Your task to perform on an android device: Go to Yahoo.com Image 0: 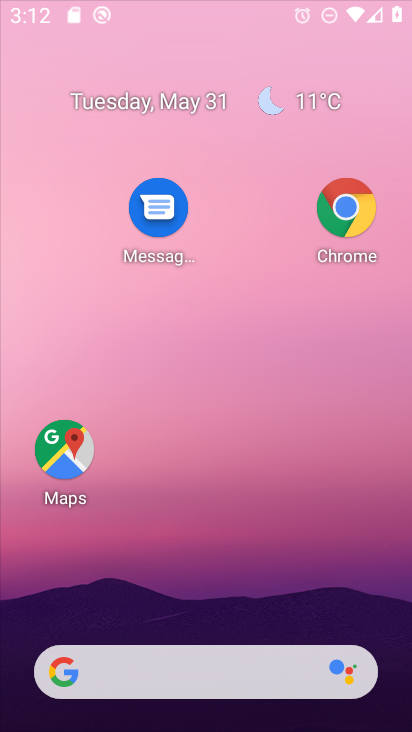
Step 0: click (194, 43)
Your task to perform on an android device: Go to Yahoo.com Image 1: 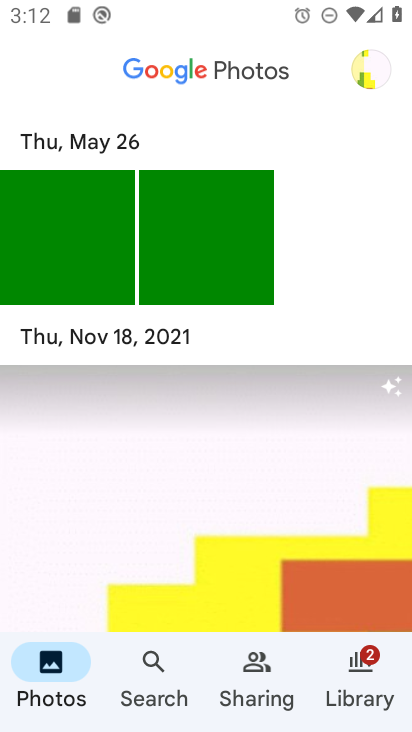
Step 1: press home button
Your task to perform on an android device: Go to Yahoo.com Image 2: 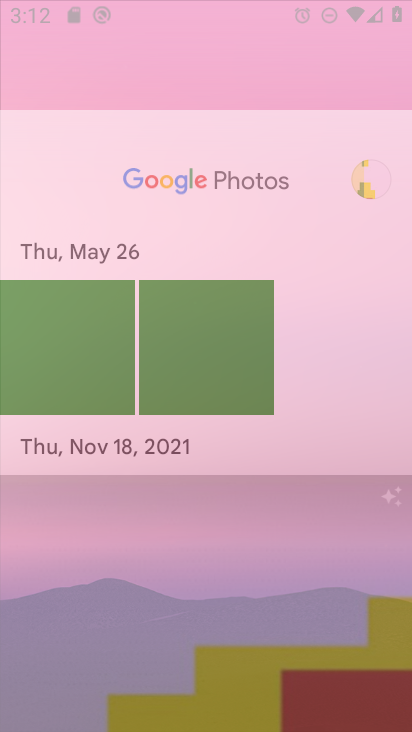
Step 2: drag from (237, 543) to (233, 83)
Your task to perform on an android device: Go to Yahoo.com Image 3: 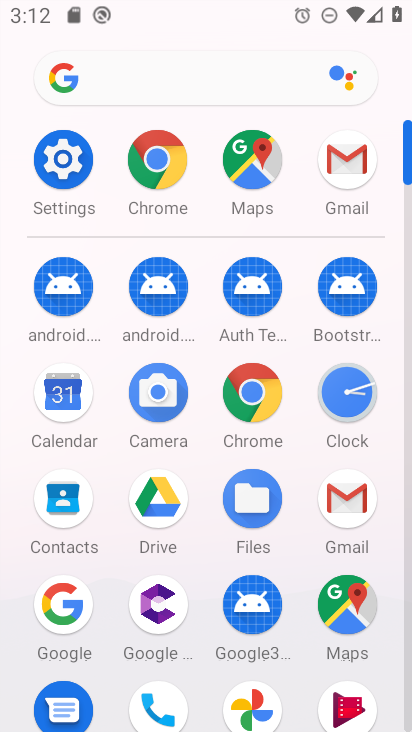
Step 3: click (168, 69)
Your task to perform on an android device: Go to Yahoo.com Image 4: 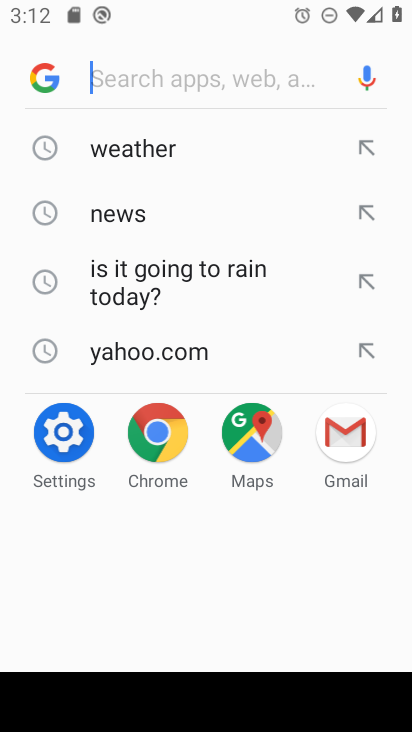
Step 4: click (155, 351)
Your task to perform on an android device: Go to Yahoo.com Image 5: 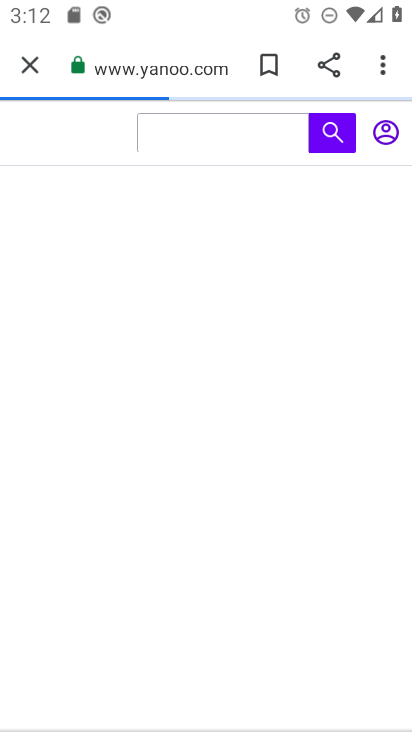
Step 5: task complete